Your task to perform on an android device: Go to CNN.com Image 0: 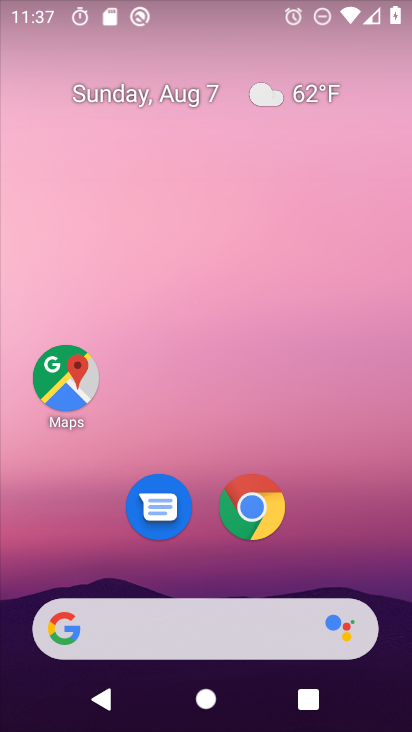
Step 0: drag from (334, 542) to (300, 95)
Your task to perform on an android device: Go to CNN.com Image 1: 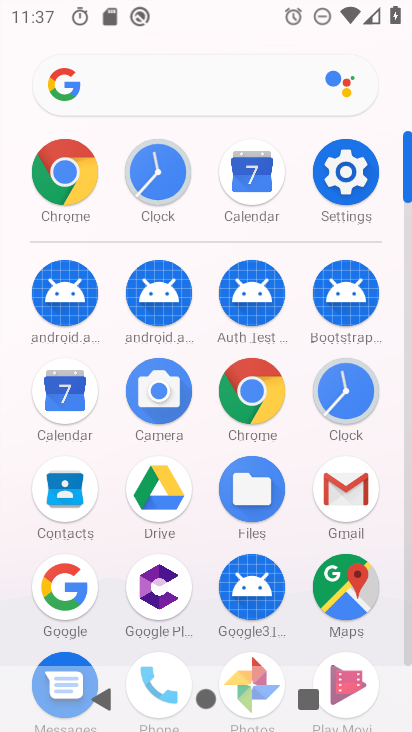
Step 1: click (254, 385)
Your task to perform on an android device: Go to CNN.com Image 2: 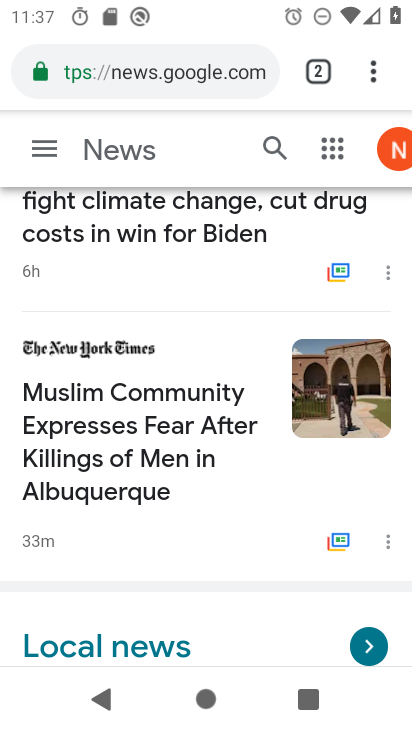
Step 2: click (212, 74)
Your task to perform on an android device: Go to CNN.com Image 3: 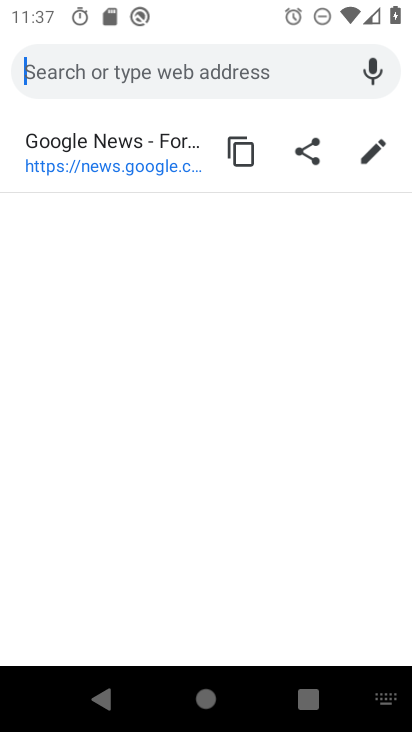
Step 3: type "cnn.com"
Your task to perform on an android device: Go to CNN.com Image 4: 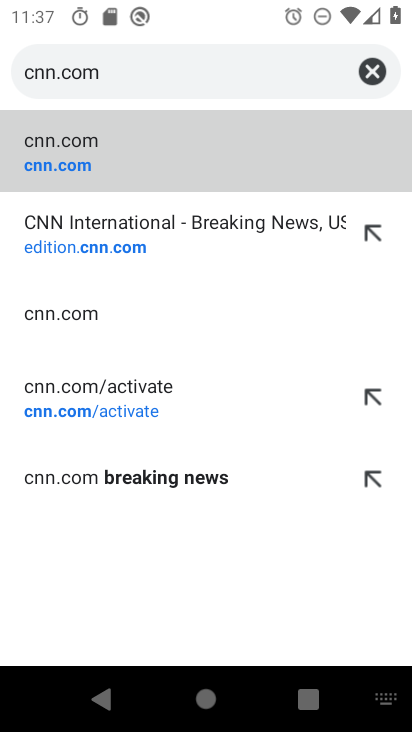
Step 4: click (95, 152)
Your task to perform on an android device: Go to CNN.com Image 5: 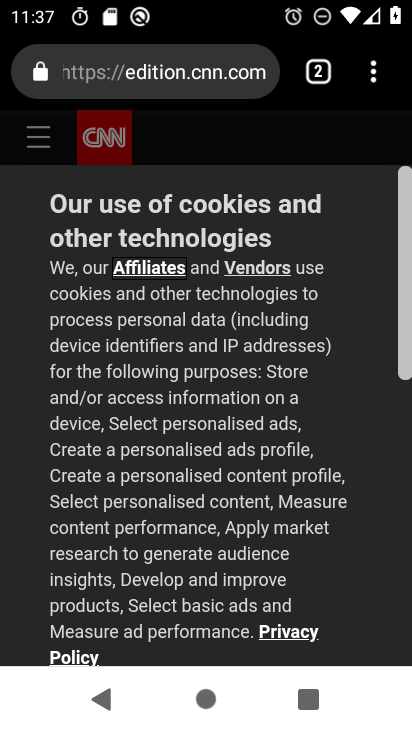
Step 5: task complete